Your task to perform on an android device: turn vacation reply on in the gmail app Image 0: 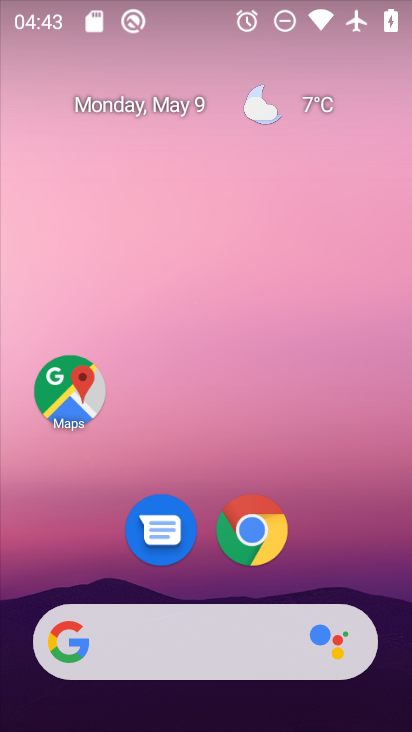
Step 0: drag from (211, 584) to (207, 127)
Your task to perform on an android device: turn vacation reply on in the gmail app Image 1: 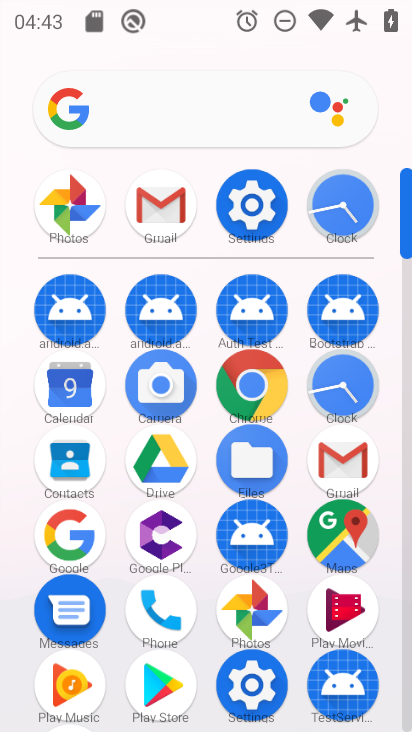
Step 1: click (352, 446)
Your task to perform on an android device: turn vacation reply on in the gmail app Image 2: 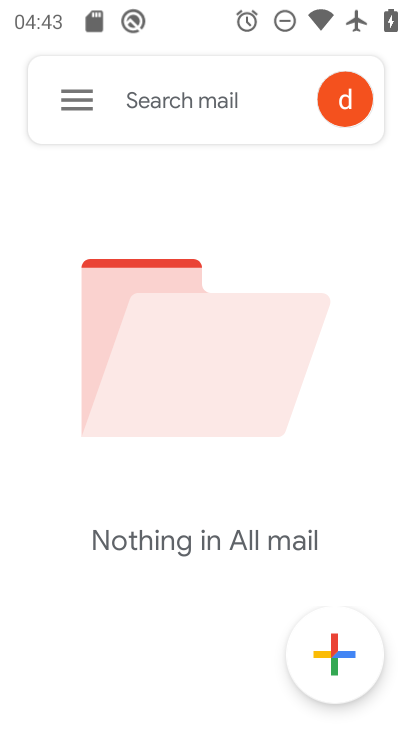
Step 2: click (58, 95)
Your task to perform on an android device: turn vacation reply on in the gmail app Image 3: 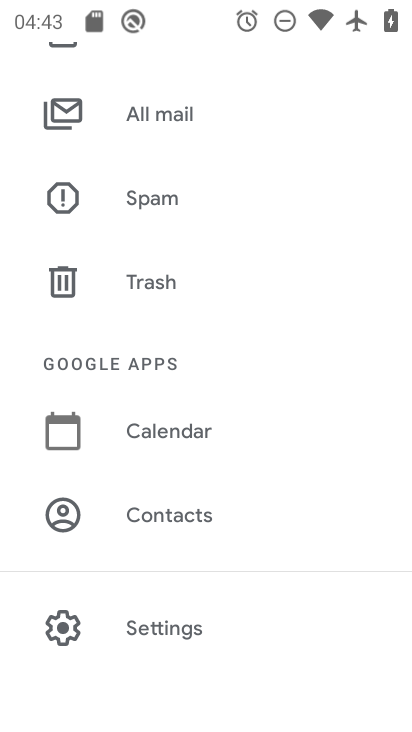
Step 3: click (145, 616)
Your task to perform on an android device: turn vacation reply on in the gmail app Image 4: 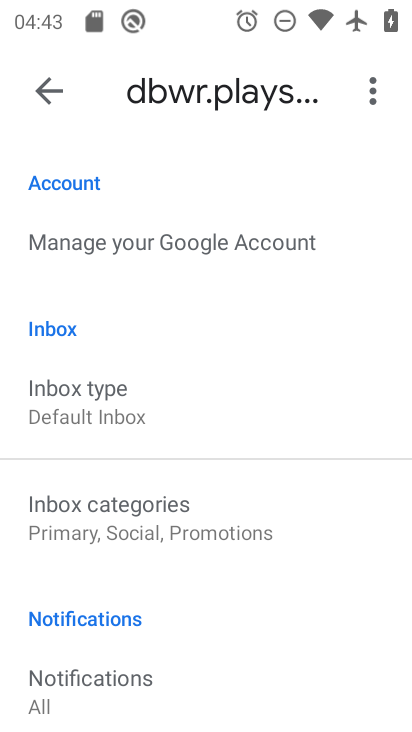
Step 4: drag from (170, 594) to (191, 102)
Your task to perform on an android device: turn vacation reply on in the gmail app Image 5: 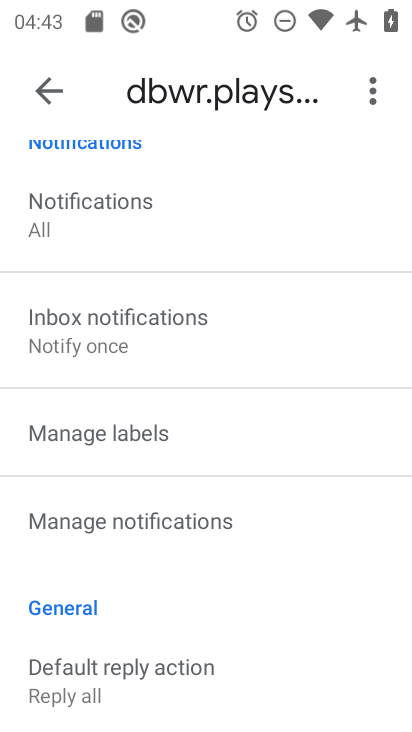
Step 5: drag from (139, 648) to (162, 93)
Your task to perform on an android device: turn vacation reply on in the gmail app Image 6: 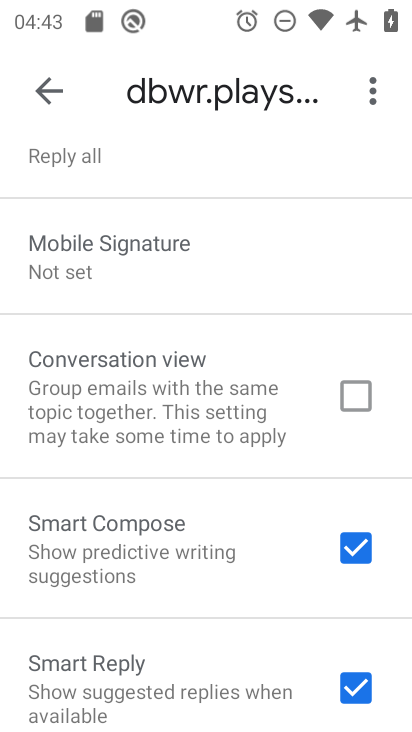
Step 6: drag from (153, 669) to (181, 157)
Your task to perform on an android device: turn vacation reply on in the gmail app Image 7: 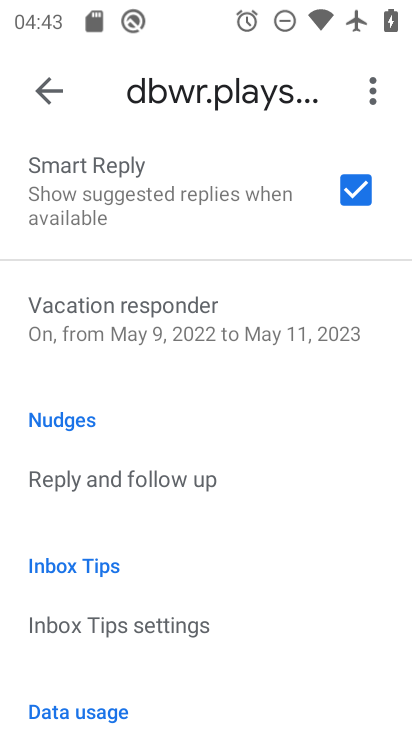
Step 7: click (185, 303)
Your task to perform on an android device: turn vacation reply on in the gmail app Image 8: 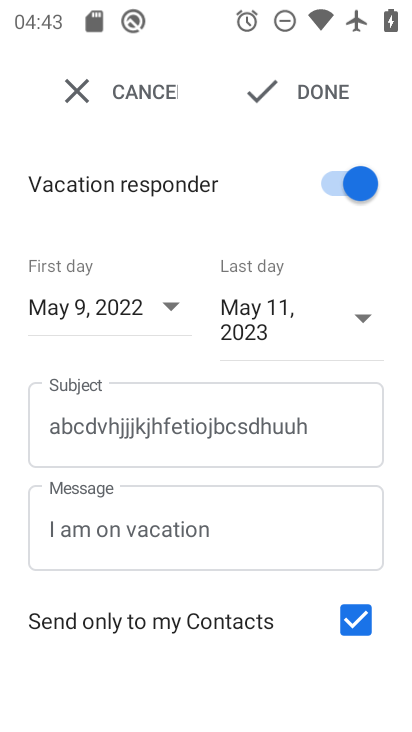
Step 8: task complete